Your task to perform on an android device: change text size in settings app Image 0: 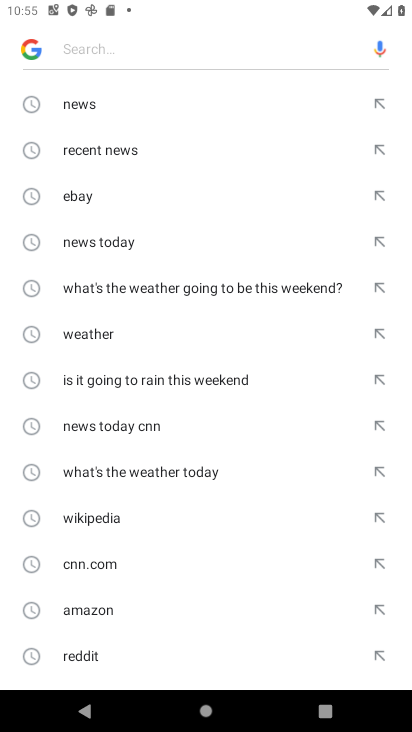
Step 0: press home button
Your task to perform on an android device: change text size in settings app Image 1: 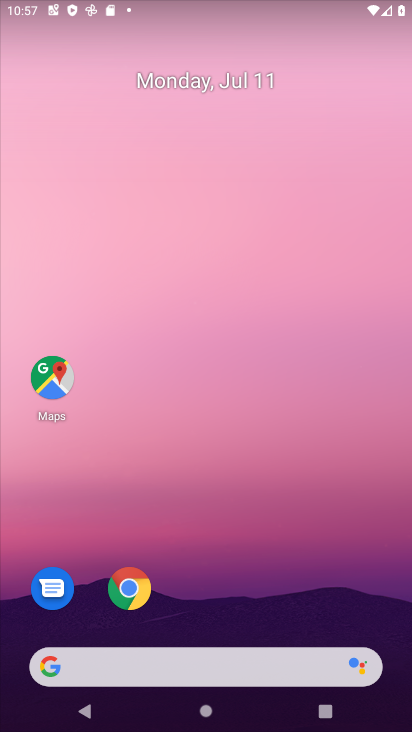
Step 1: drag from (147, 683) to (112, 38)
Your task to perform on an android device: change text size in settings app Image 2: 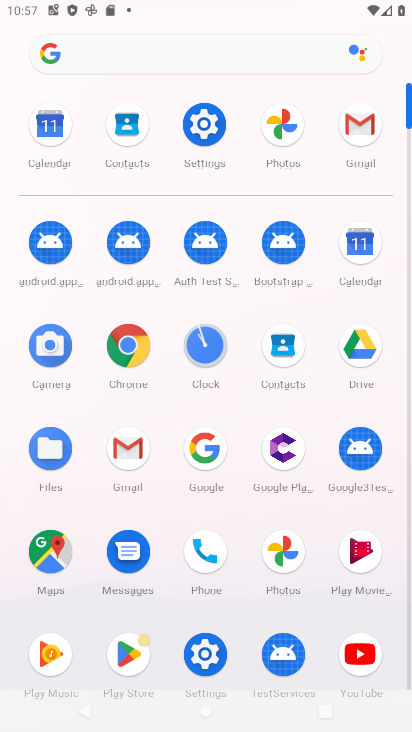
Step 2: click (184, 115)
Your task to perform on an android device: change text size in settings app Image 3: 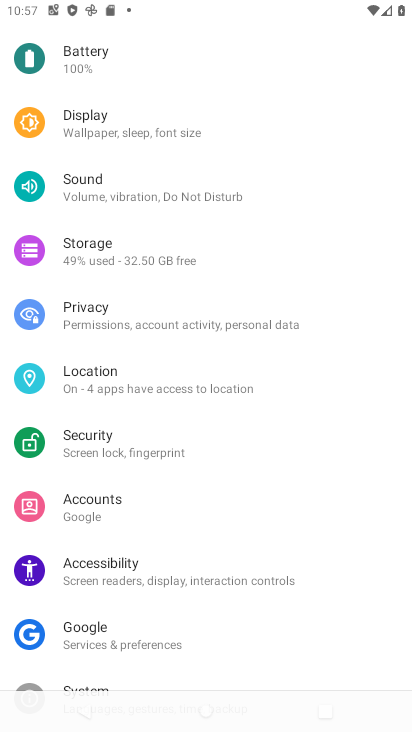
Step 3: click (169, 135)
Your task to perform on an android device: change text size in settings app Image 4: 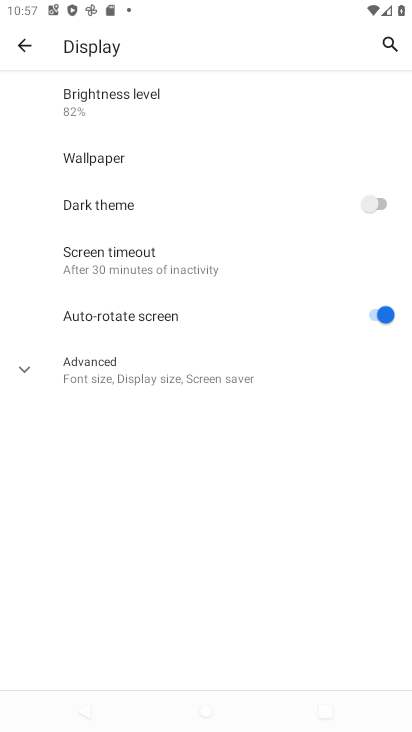
Step 4: click (148, 379)
Your task to perform on an android device: change text size in settings app Image 5: 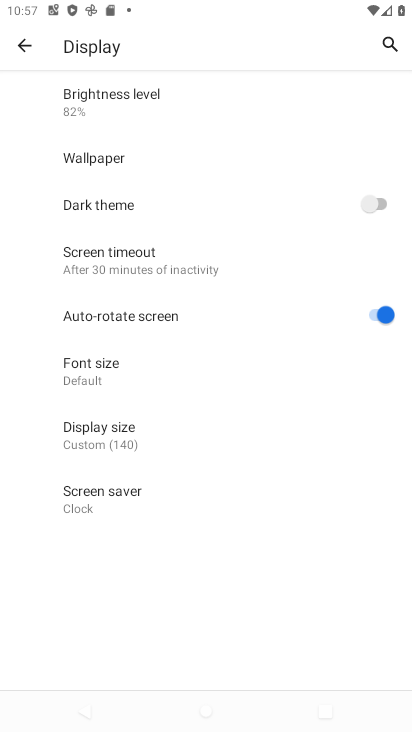
Step 5: click (84, 353)
Your task to perform on an android device: change text size in settings app Image 6: 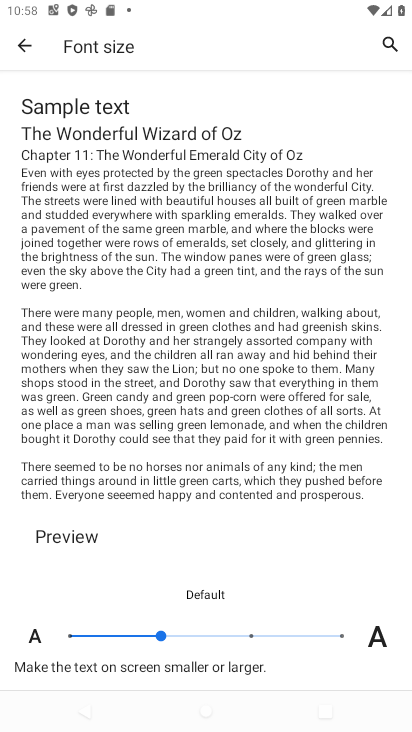
Step 6: click (118, 632)
Your task to perform on an android device: change text size in settings app Image 7: 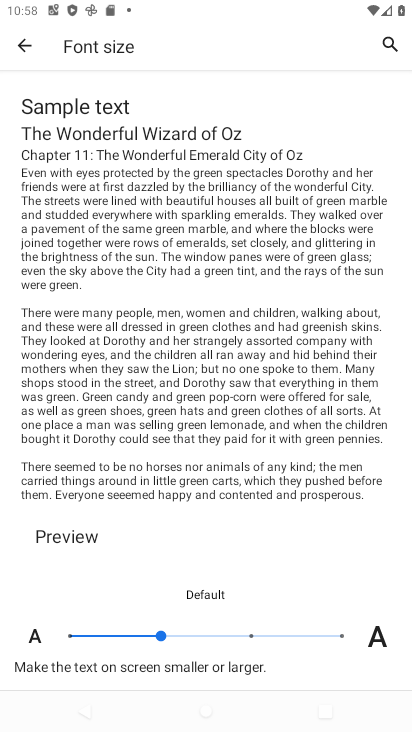
Step 7: click (251, 632)
Your task to perform on an android device: change text size in settings app Image 8: 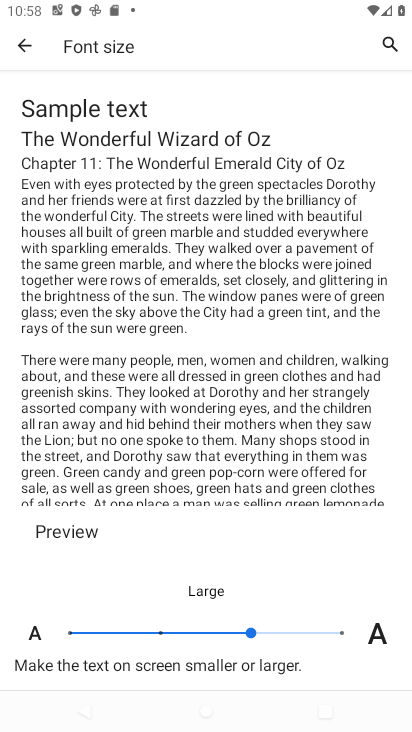
Step 8: task complete